Your task to perform on an android device: change notification settings in the gmail app Image 0: 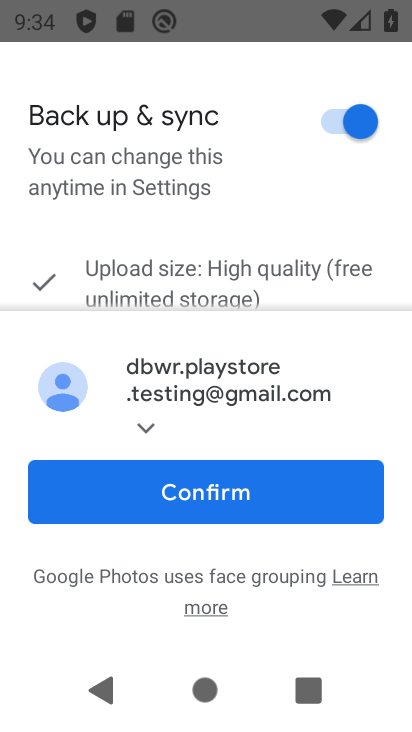
Step 0: press home button
Your task to perform on an android device: change notification settings in the gmail app Image 1: 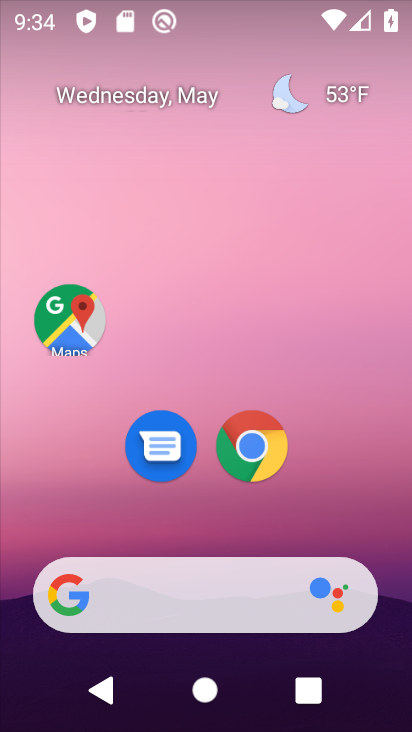
Step 1: drag from (342, 504) to (378, 136)
Your task to perform on an android device: change notification settings in the gmail app Image 2: 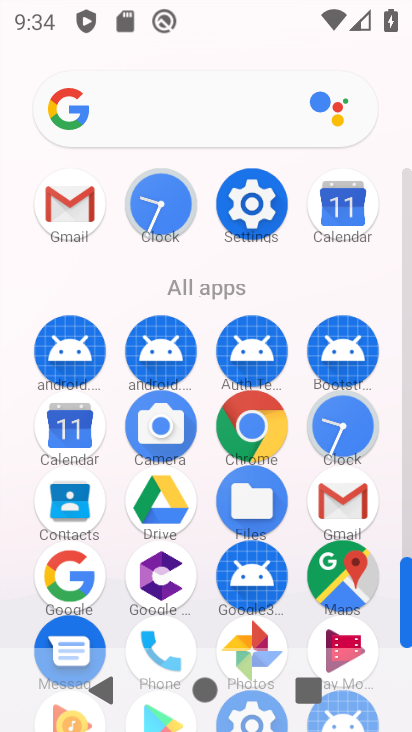
Step 2: click (264, 231)
Your task to perform on an android device: change notification settings in the gmail app Image 3: 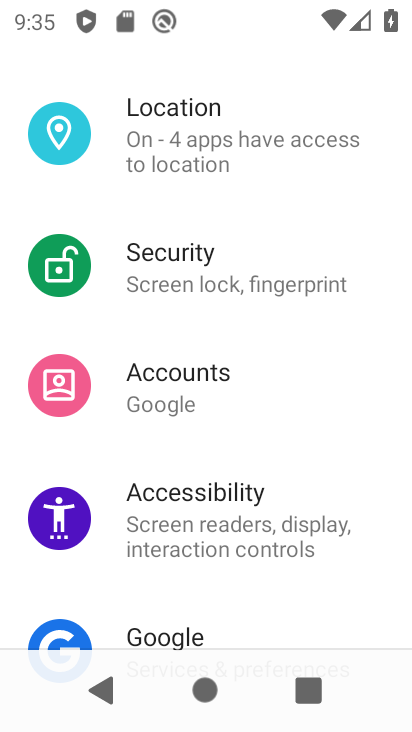
Step 3: drag from (197, 517) to (196, 370)
Your task to perform on an android device: change notification settings in the gmail app Image 4: 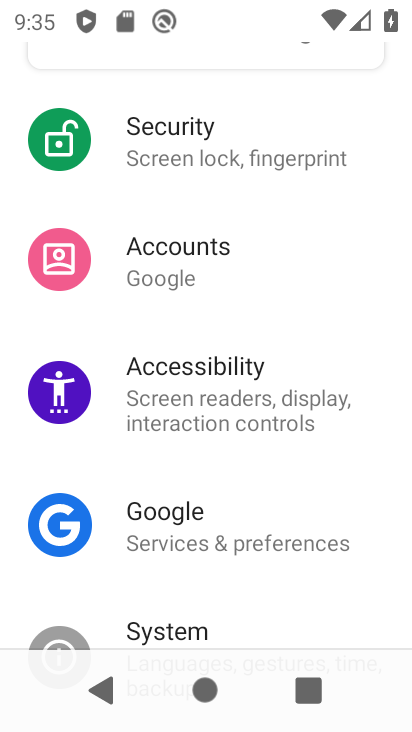
Step 4: press home button
Your task to perform on an android device: change notification settings in the gmail app Image 5: 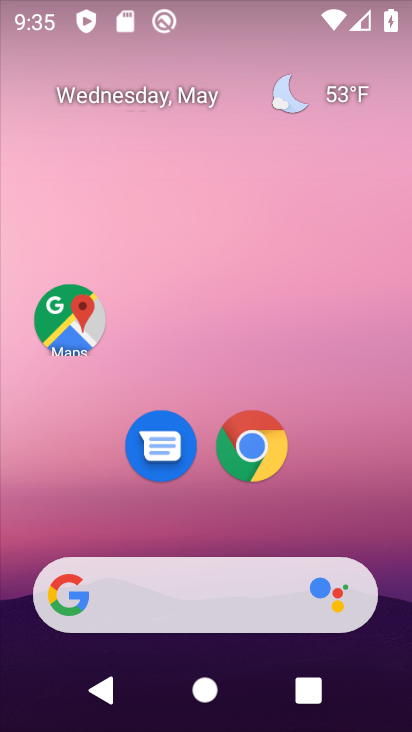
Step 5: drag from (341, 533) to (367, 174)
Your task to perform on an android device: change notification settings in the gmail app Image 6: 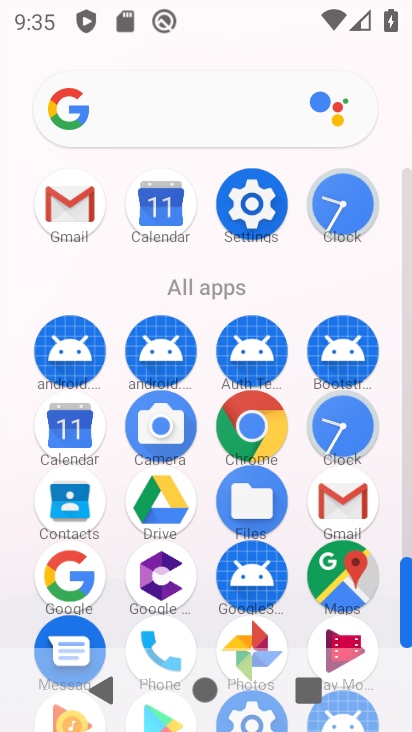
Step 6: click (48, 183)
Your task to perform on an android device: change notification settings in the gmail app Image 7: 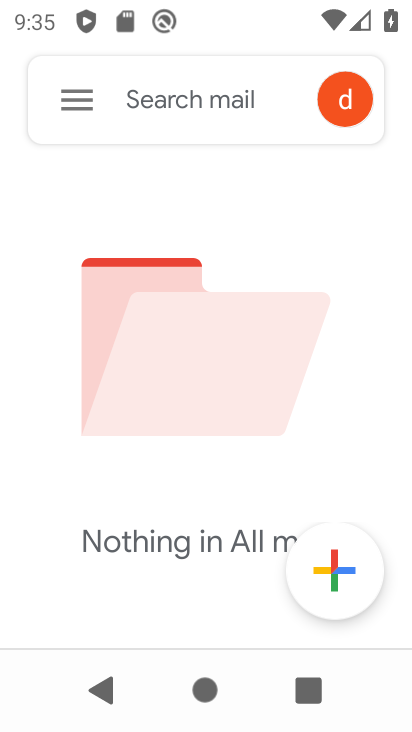
Step 7: click (92, 112)
Your task to perform on an android device: change notification settings in the gmail app Image 8: 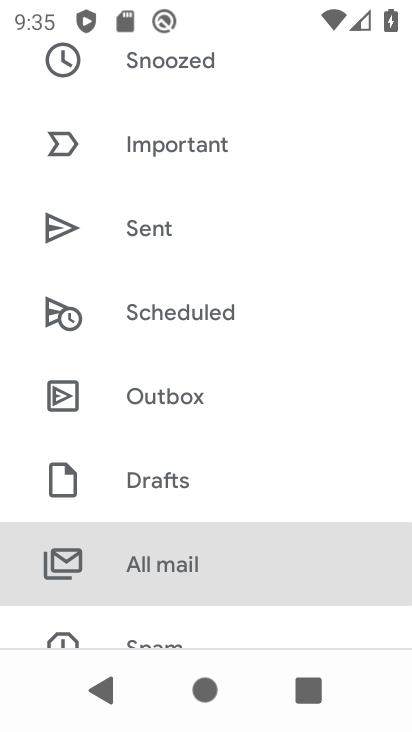
Step 8: drag from (124, 571) to (174, 74)
Your task to perform on an android device: change notification settings in the gmail app Image 9: 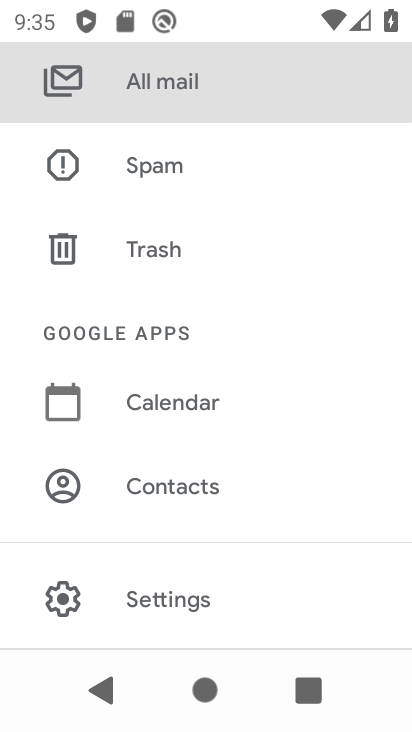
Step 9: click (228, 588)
Your task to perform on an android device: change notification settings in the gmail app Image 10: 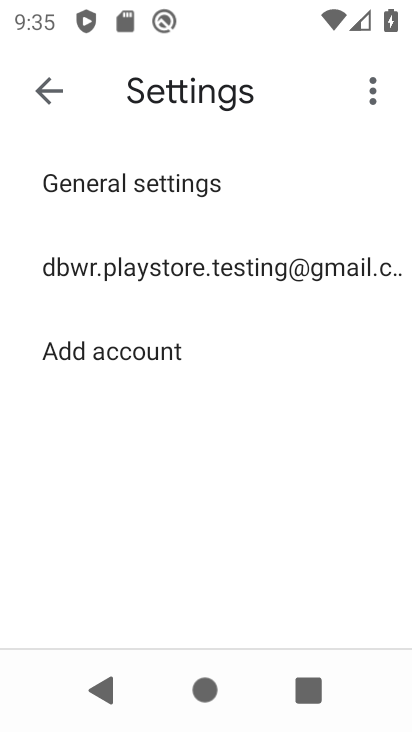
Step 10: click (247, 274)
Your task to perform on an android device: change notification settings in the gmail app Image 11: 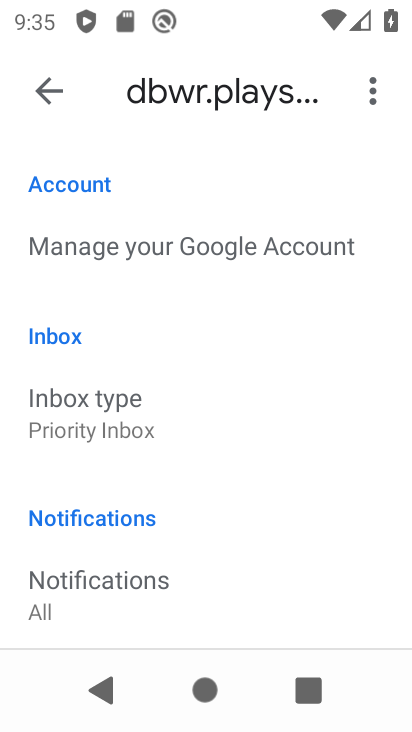
Step 11: drag from (274, 531) to (282, 112)
Your task to perform on an android device: change notification settings in the gmail app Image 12: 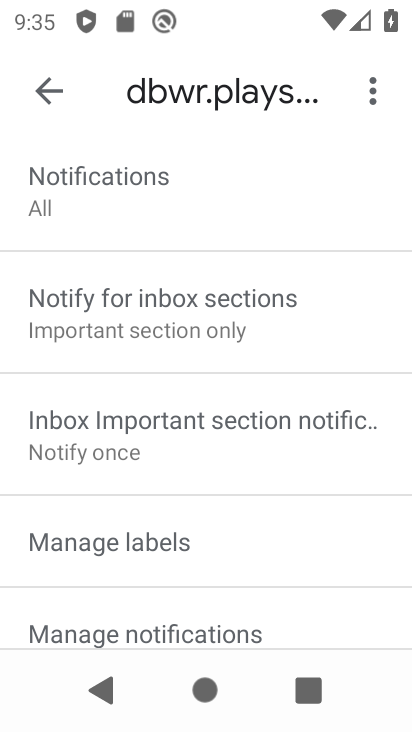
Step 12: click (244, 613)
Your task to perform on an android device: change notification settings in the gmail app Image 13: 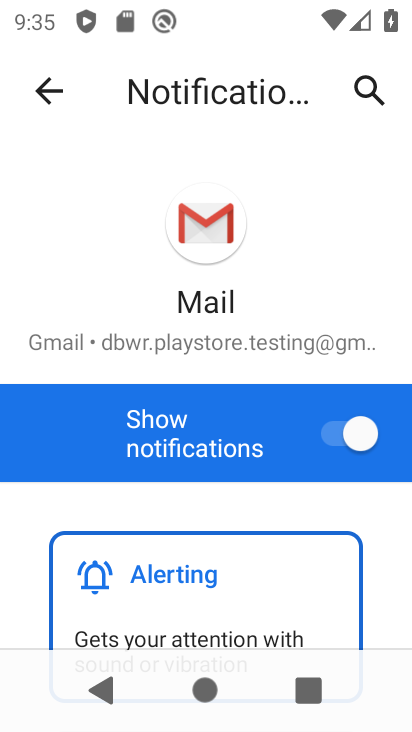
Step 13: drag from (305, 585) to (324, 212)
Your task to perform on an android device: change notification settings in the gmail app Image 14: 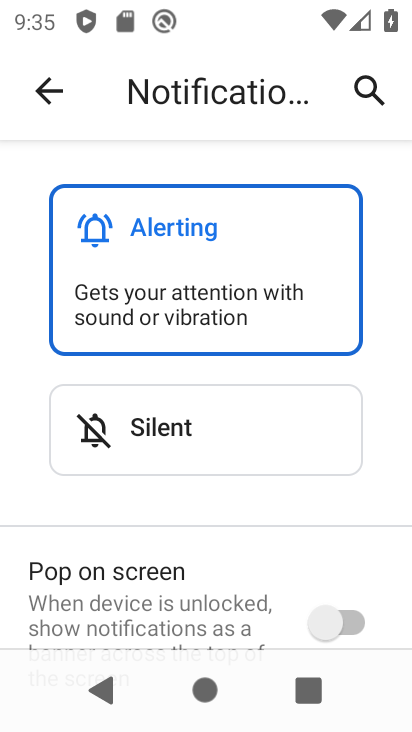
Step 14: click (283, 425)
Your task to perform on an android device: change notification settings in the gmail app Image 15: 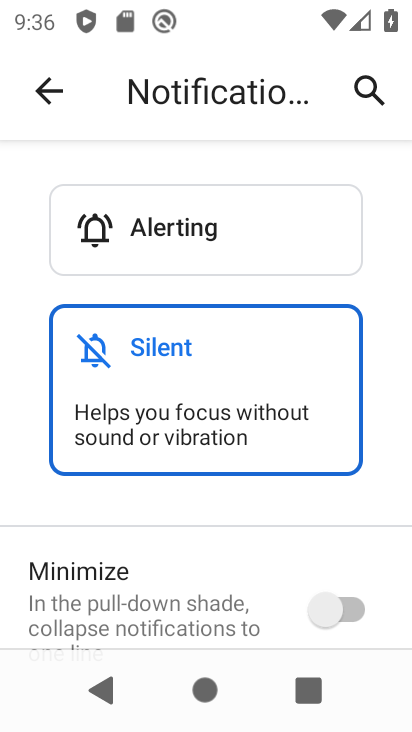
Step 15: click (340, 623)
Your task to perform on an android device: change notification settings in the gmail app Image 16: 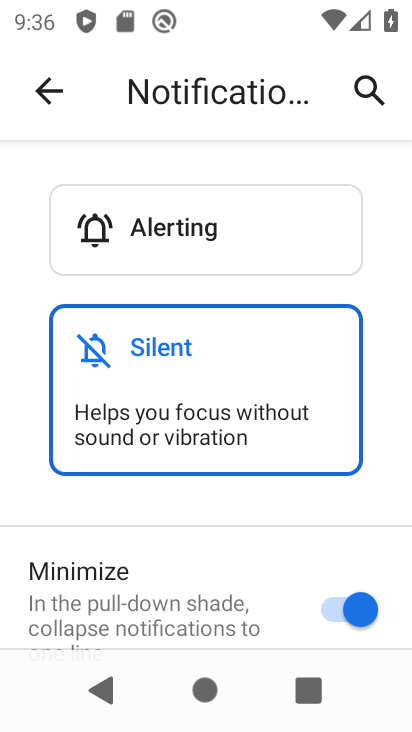
Step 16: task complete